Your task to perform on an android device: turn off airplane mode Image 0: 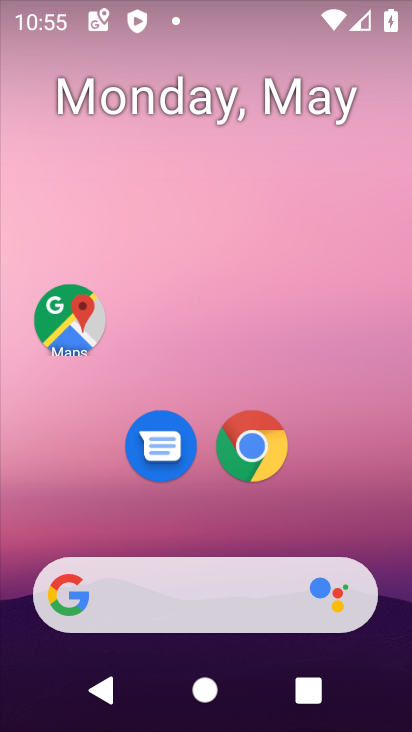
Step 0: drag from (358, 470) to (16, 164)
Your task to perform on an android device: turn off airplane mode Image 1: 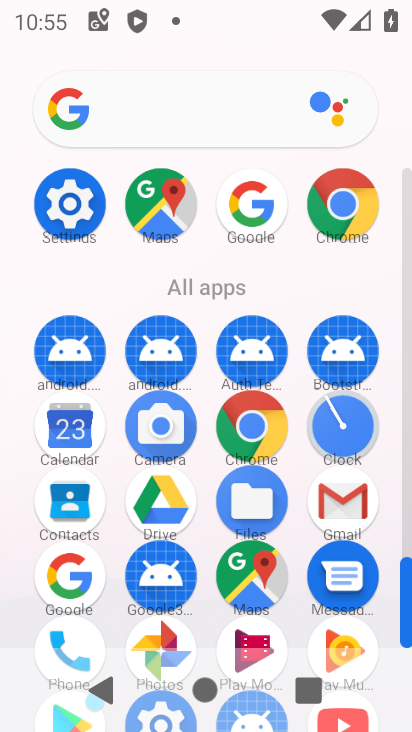
Step 1: click (52, 272)
Your task to perform on an android device: turn off airplane mode Image 2: 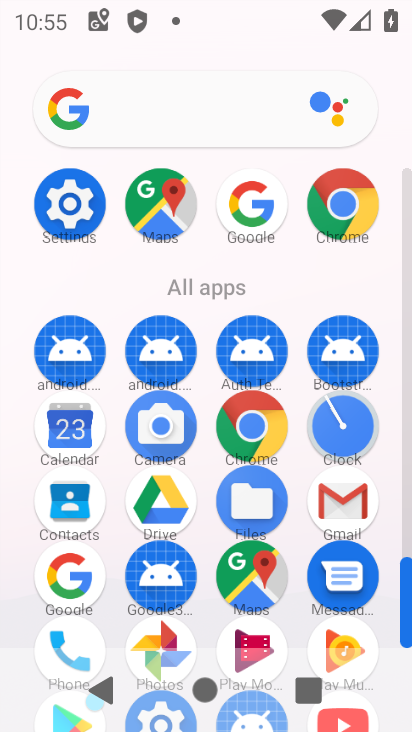
Step 2: click (71, 214)
Your task to perform on an android device: turn off airplane mode Image 3: 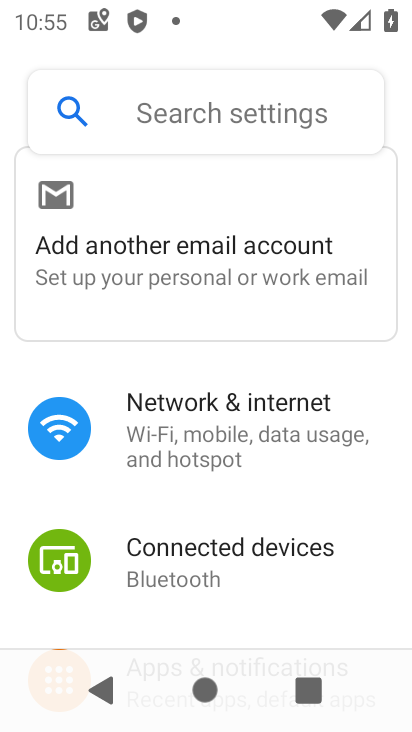
Step 3: click (208, 416)
Your task to perform on an android device: turn off airplane mode Image 4: 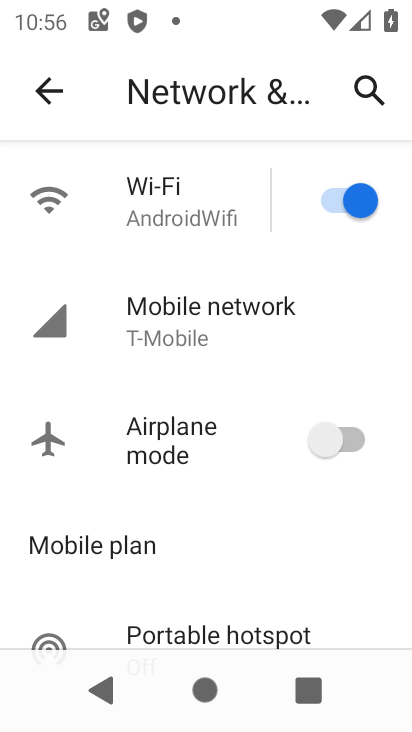
Step 4: task complete